Your task to perform on an android device: Clear all items from cart on costco. Search for "usb-c to usb-a" on costco, select the first entry, add it to the cart, then select checkout. Image 0: 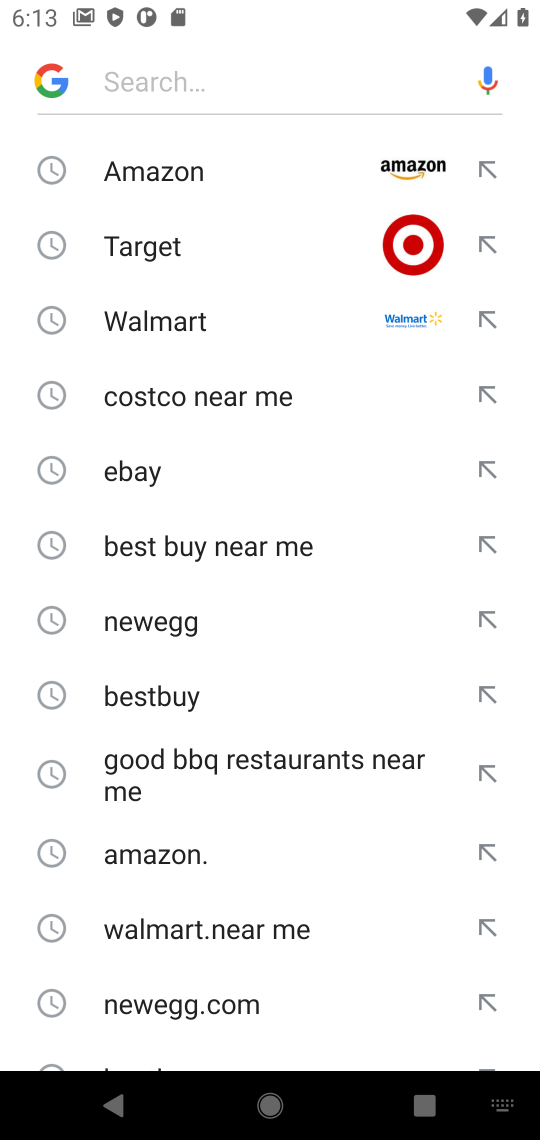
Step 0: press home button
Your task to perform on an android device: Clear all items from cart on costco. Search for "usb-c to usb-a" on costco, select the first entry, add it to the cart, then select checkout. Image 1: 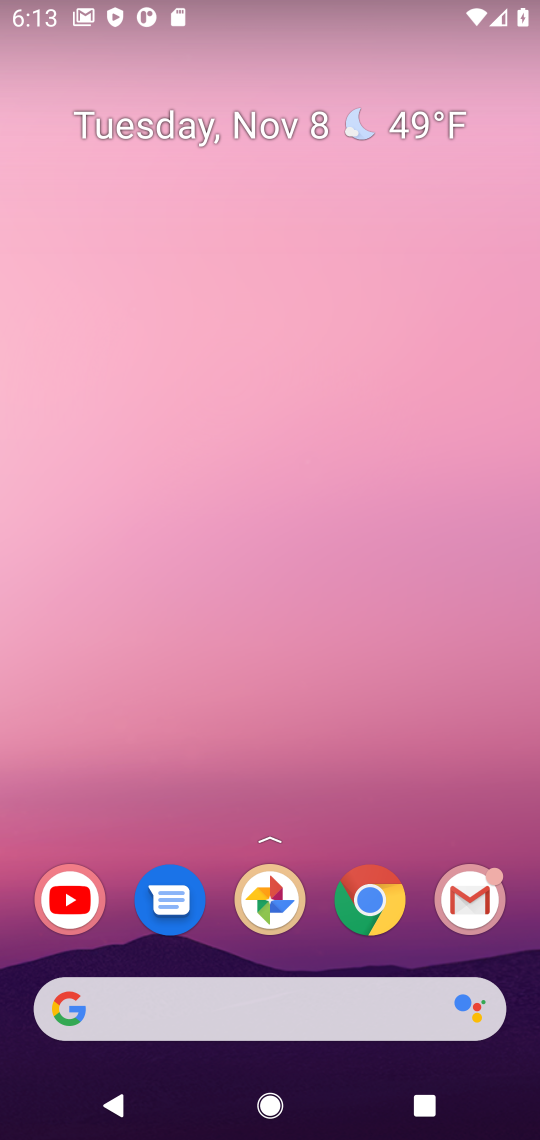
Step 1: click (374, 909)
Your task to perform on an android device: Clear all items from cart on costco. Search for "usb-c to usb-a" on costco, select the first entry, add it to the cart, then select checkout. Image 2: 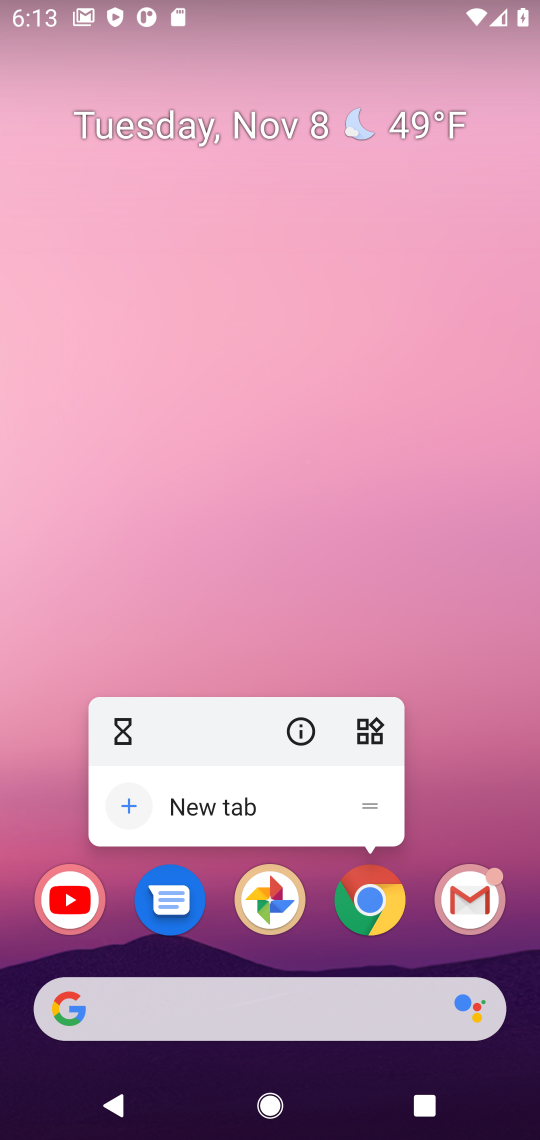
Step 2: click (395, 902)
Your task to perform on an android device: Clear all items from cart on costco. Search for "usb-c to usb-a" on costco, select the first entry, add it to the cart, then select checkout. Image 3: 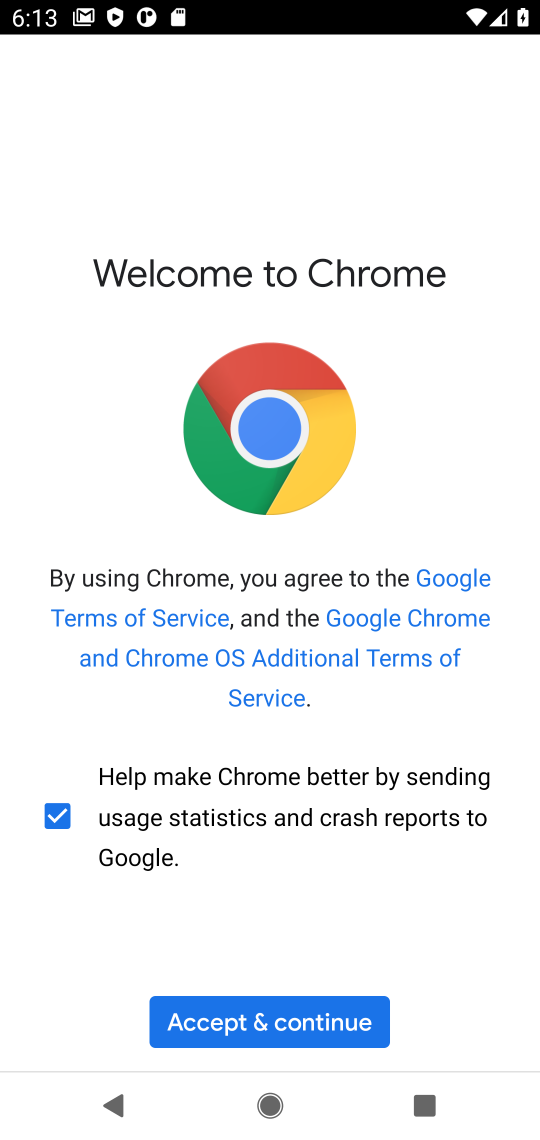
Step 3: click (339, 1034)
Your task to perform on an android device: Clear all items from cart on costco. Search for "usb-c to usb-a" on costco, select the first entry, add it to the cart, then select checkout. Image 4: 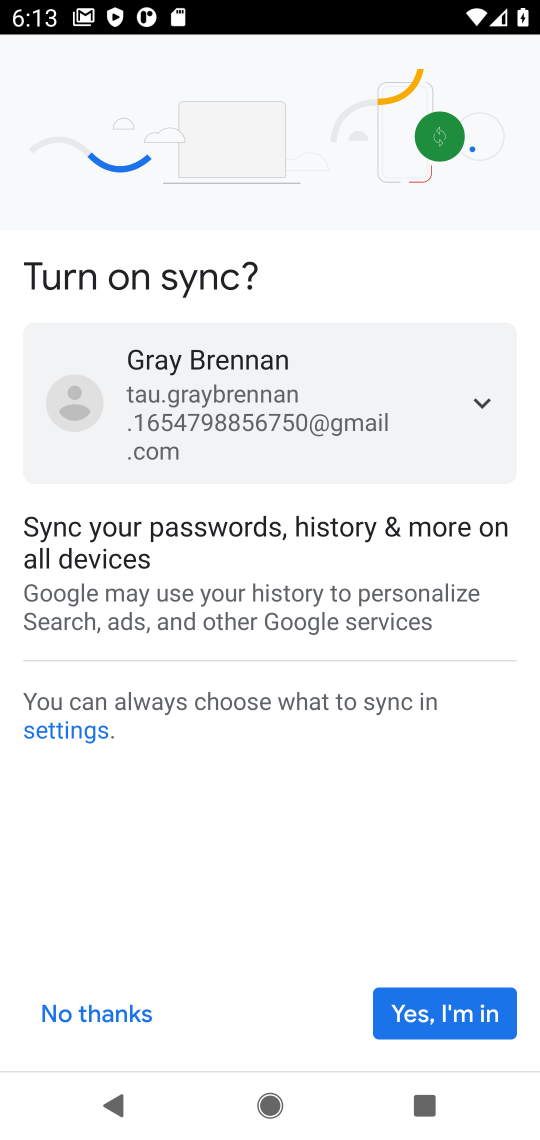
Step 4: click (402, 1002)
Your task to perform on an android device: Clear all items from cart on costco. Search for "usb-c to usb-a" on costco, select the first entry, add it to the cart, then select checkout. Image 5: 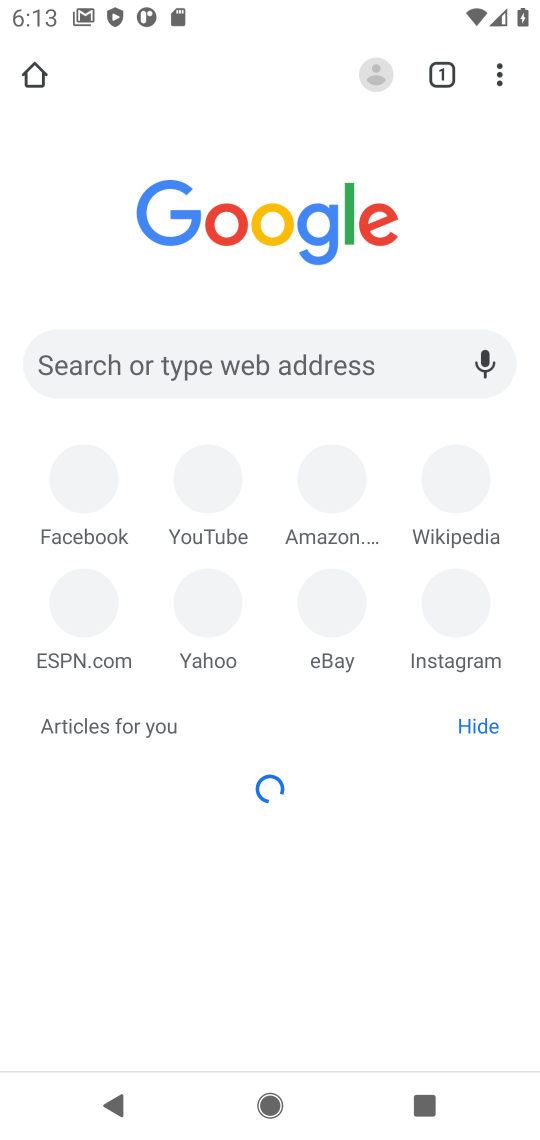
Step 5: click (257, 368)
Your task to perform on an android device: Clear all items from cart on costco. Search for "usb-c to usb-a" on costco, select the first entry, add it to the cart, then select checkout. Image 6: 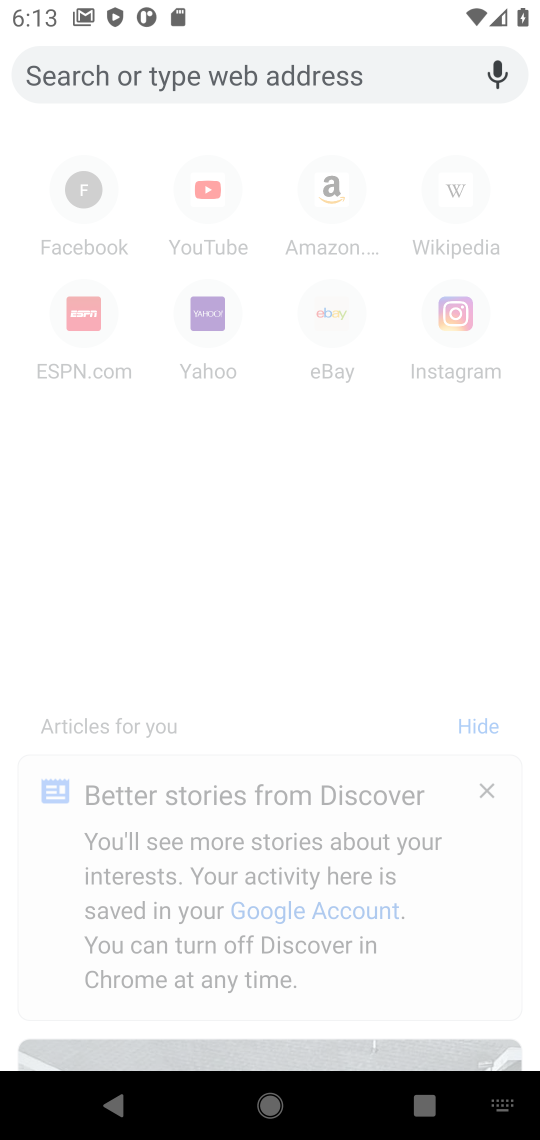
Step 6: type "costco"
Your task to perform on an android device: Clear all items from cart on costco. Search for "usb-c to usb-a" on costco, select the first entry, add it to the cart, then select checkout. Image 7: 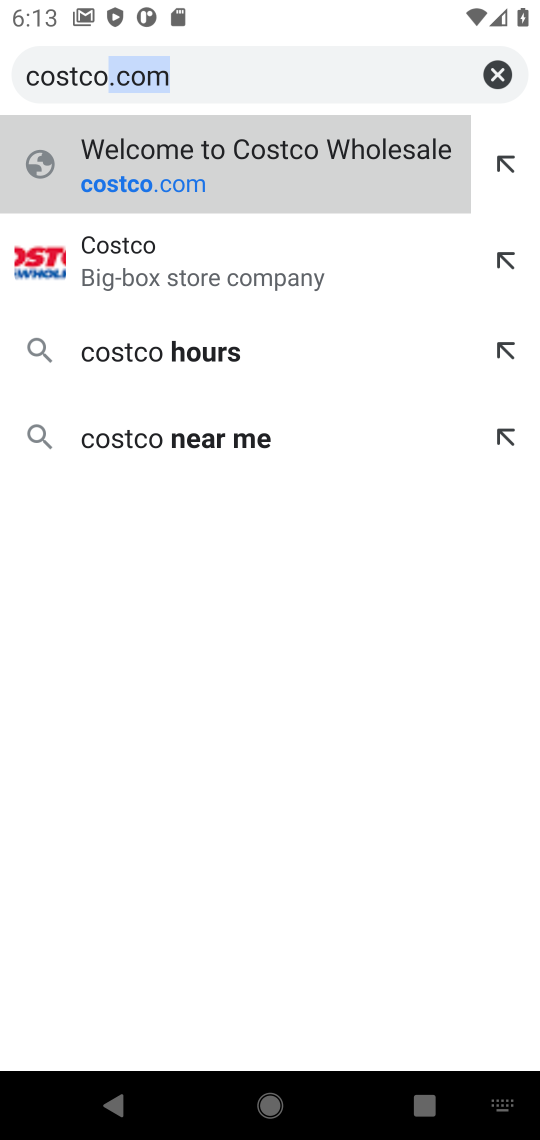
Step 7: type ""
Your task to perform on an android device: Clear all items from cart on costco. Search for "usb-c to usb-a" on costco, select the first entry, add it to the cart, then select checkout. Image 8: 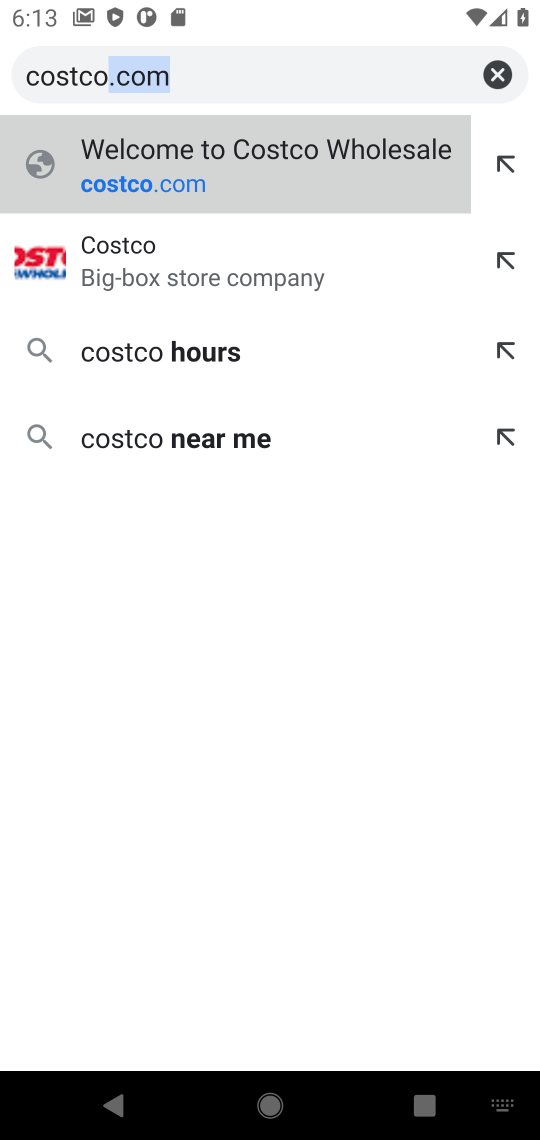
Step 8: press enter
Your task to perform on an android device: Clear all items from cart on costco. Search for "usb-c to usb-a" on costco, select the first entry, add it to the cart, then select checkout. Image 9: 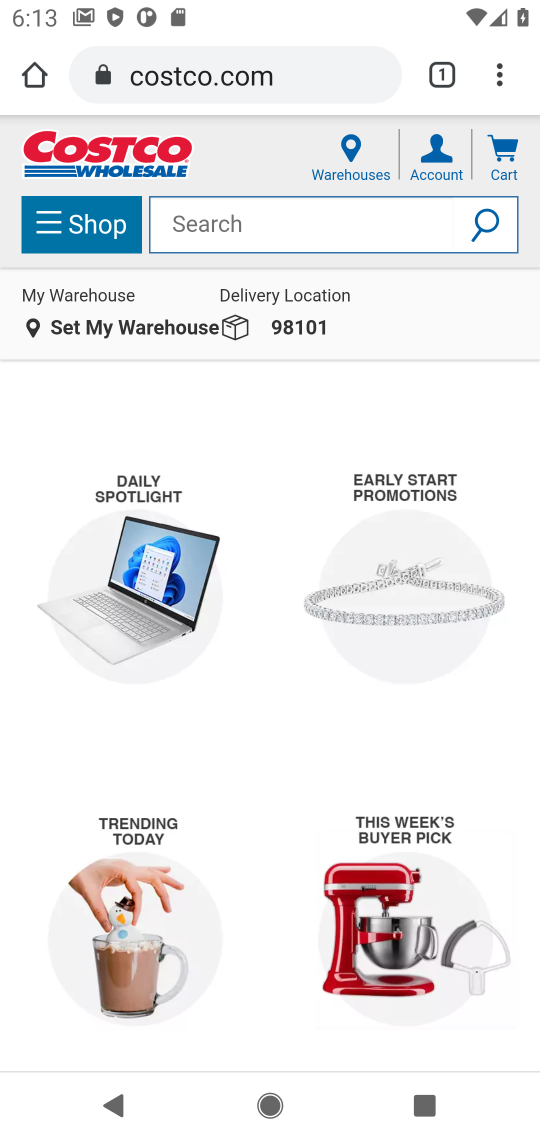
Step 9: click (492, 162)
Your task to perform on an android device: Clear all items from cart on costco. Search for "usb-c to usb-a" on costco, select the first entry, add it to the cart, then select checkout. Image 10: 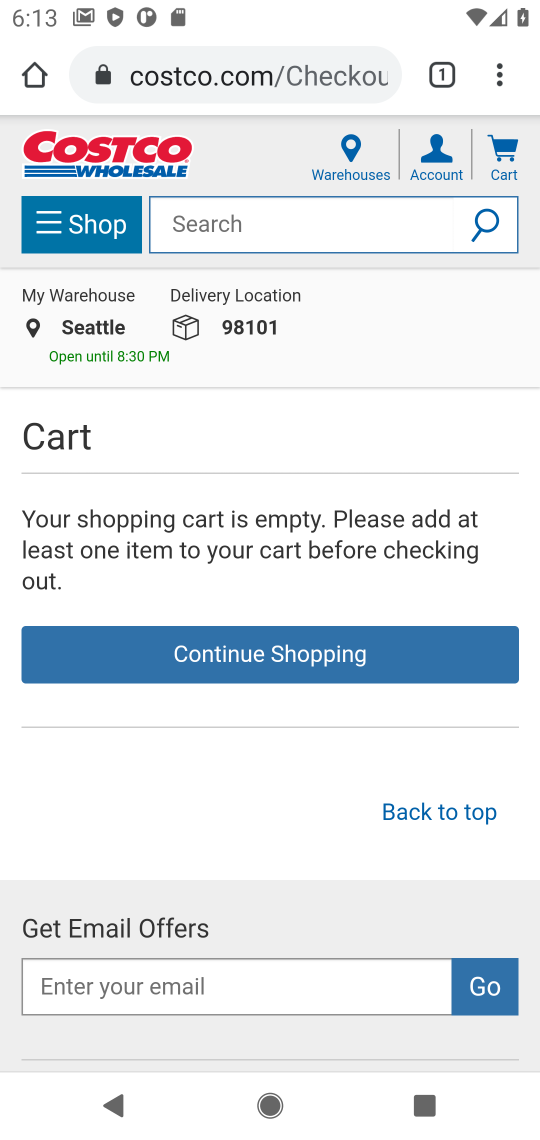
Step 10: click (364, 225)
Your task to perform on an android device: Clear all items from cart on costco. Search for "usb-c to usb-a" on costco, select the first entry, add it to the cart, then select checkout. Image 11: 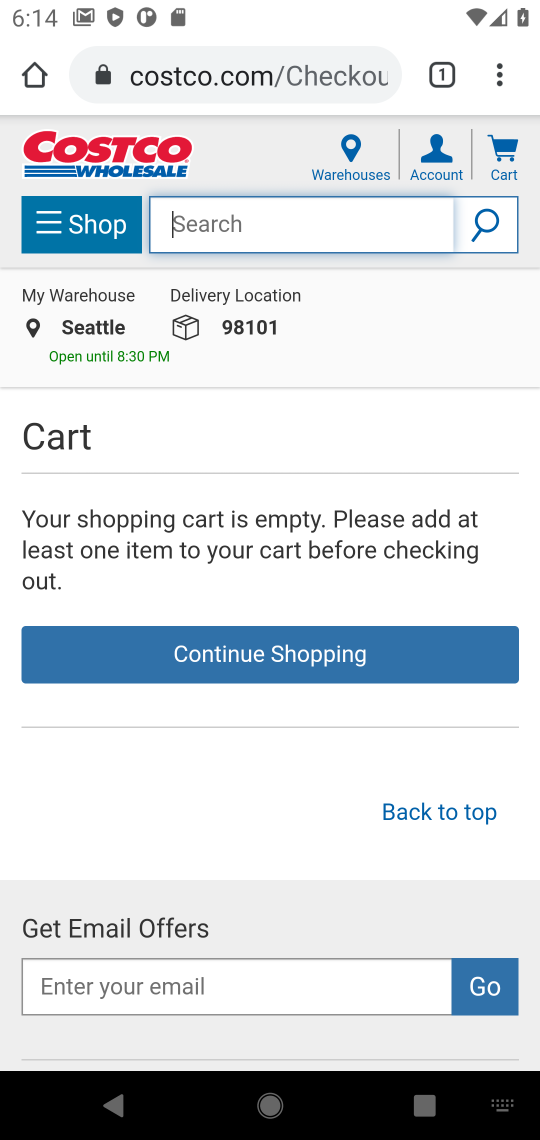
Step 11: click (371, 223)
Your task to perform on an android device: Clear all items from cart on costco. Search for "usb-c to usb-a" on costco, select the first entry, add it to the cart, then select checkout. Image 12: 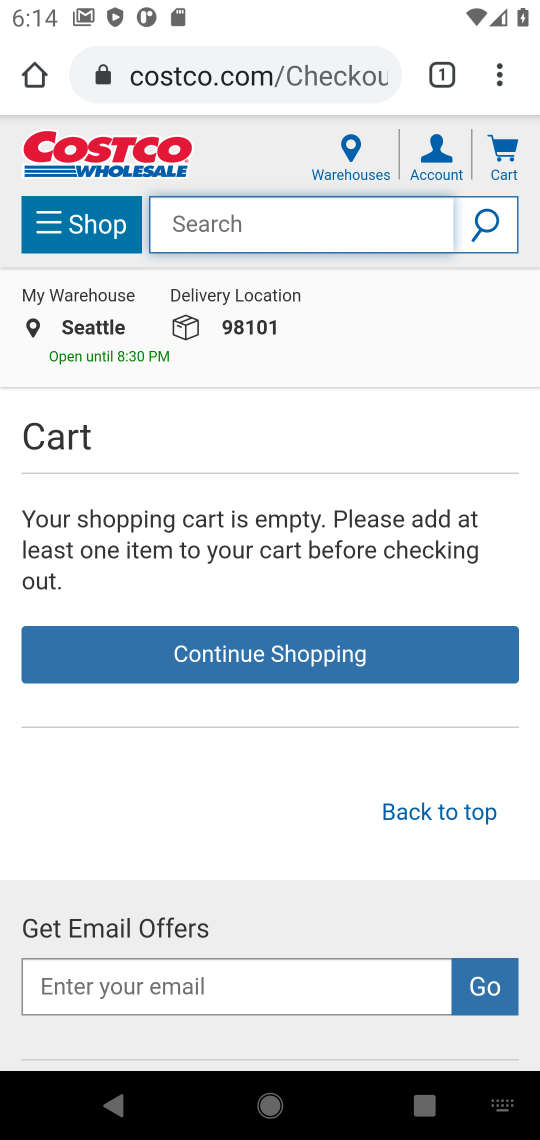
Step 12: type "usb-c to usb-a"
Your task to perform on an android device: Clear all items from cart on costco. Search for "usb-c to usb-a" on costco, select the first entry, add it to the cart, then select checkout. Image 13: 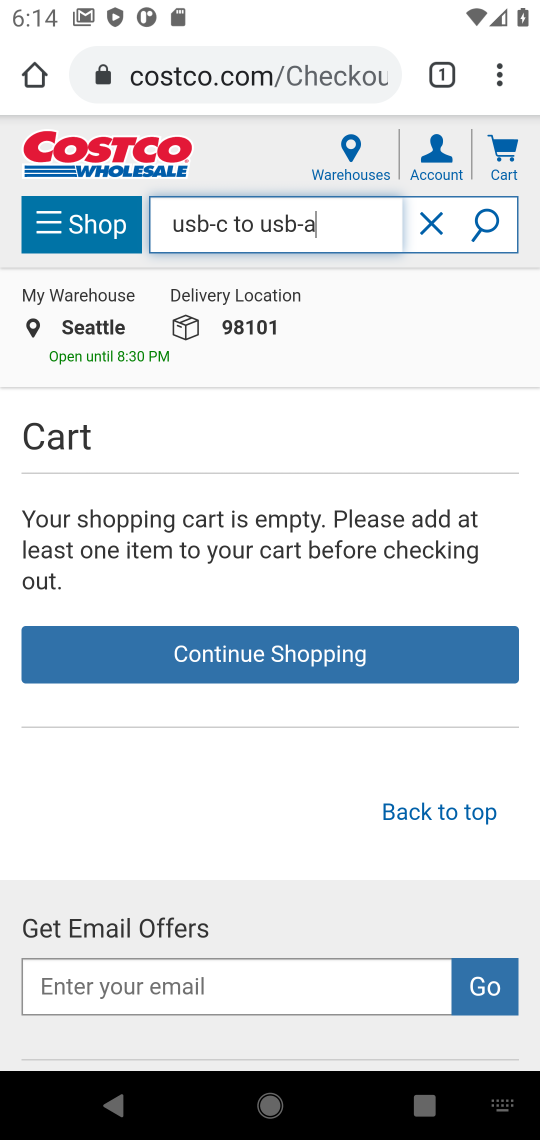
Step 13: type ""
Your task to perform on an android device: Clear all items from cart on costco. Search for "usb-c to usb-a" on costco, select the first entry, add it to the cart, then select checkout. Image 14: 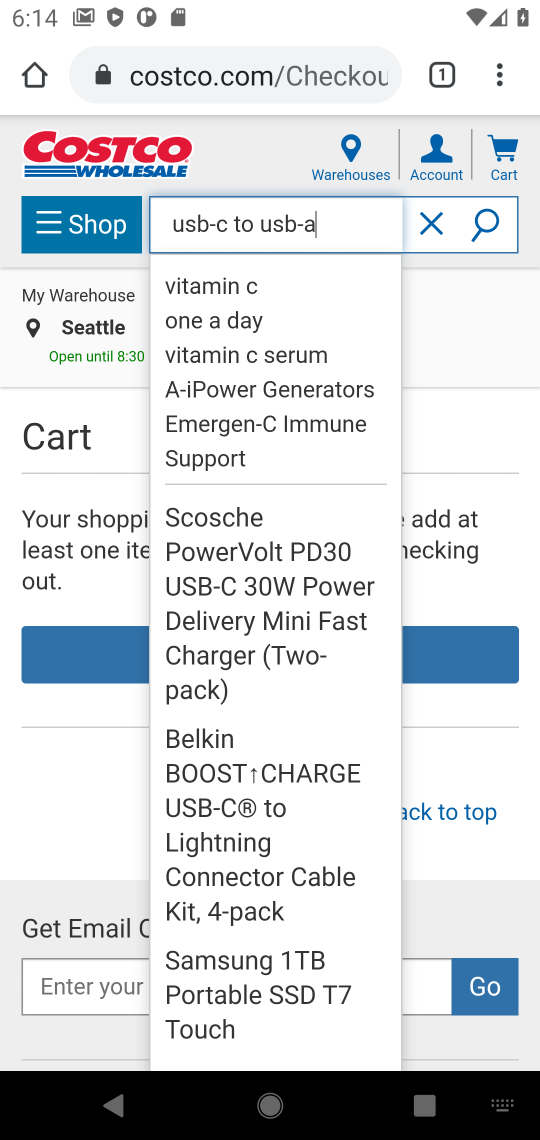
Step 14: click (493, 219)
Your task to perform on an android device: Clear all items from cart on costco. Search for "usb-c to usb-a" on costco, select the first entry, add it to the cart, then select checkout. Image 15: 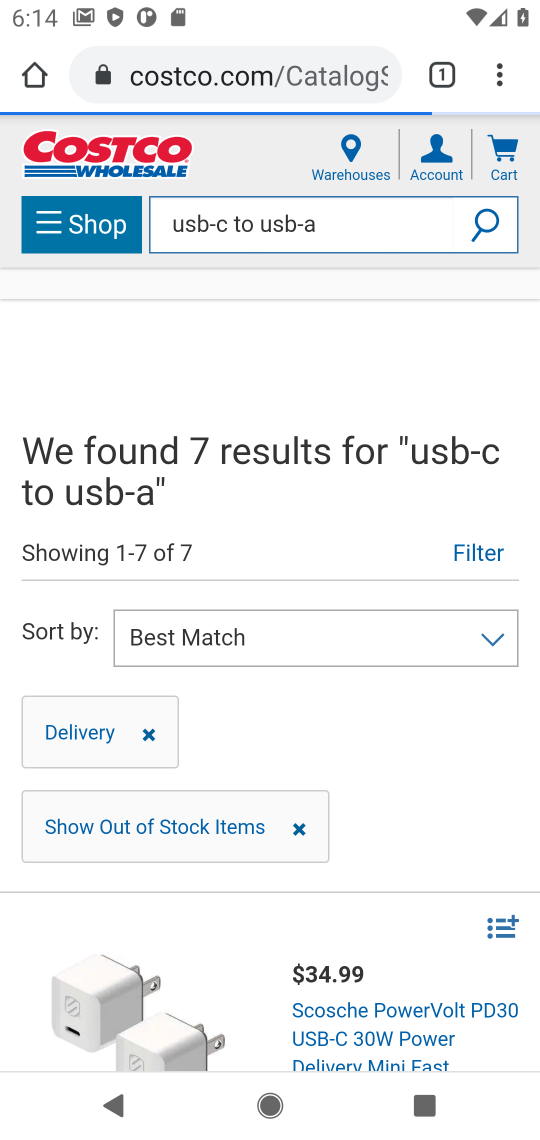
Step 15: drag from (368, 923) to (379, 572)
Your task to perform on an android device: Clear all items from cart on costco. Search for "usb-c to usb-a" on costco, select the first entry, add it to the cart, then select checkout. Image 16: 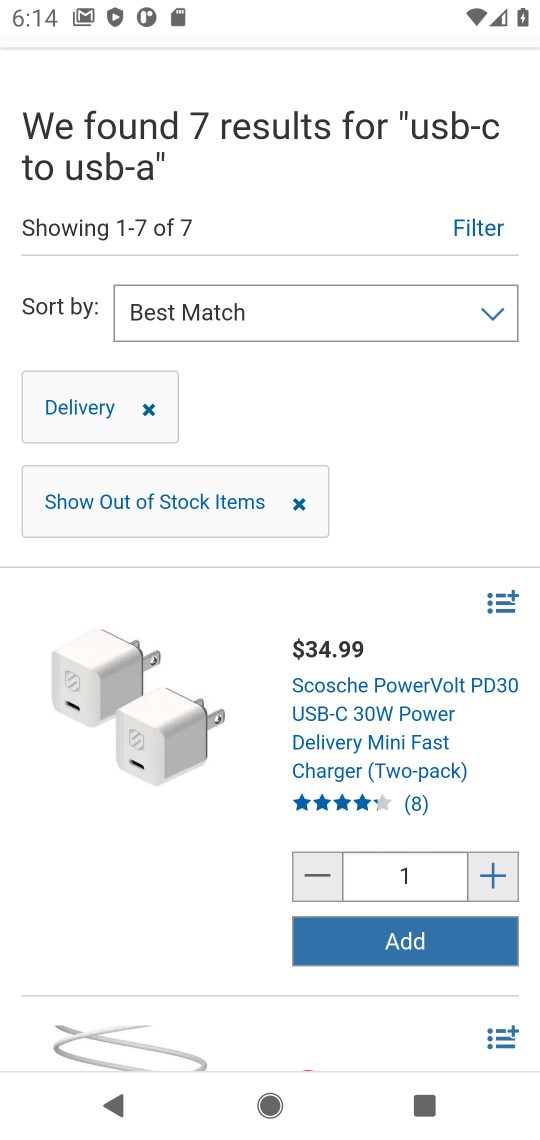
Step 16: click (367, 725)
Your task to perform on an android device: Clear all items from cart on costco. Search for "usb-c to usb-a" on costco, select the first entry, add it to the cart, then select checkout. Image 17: 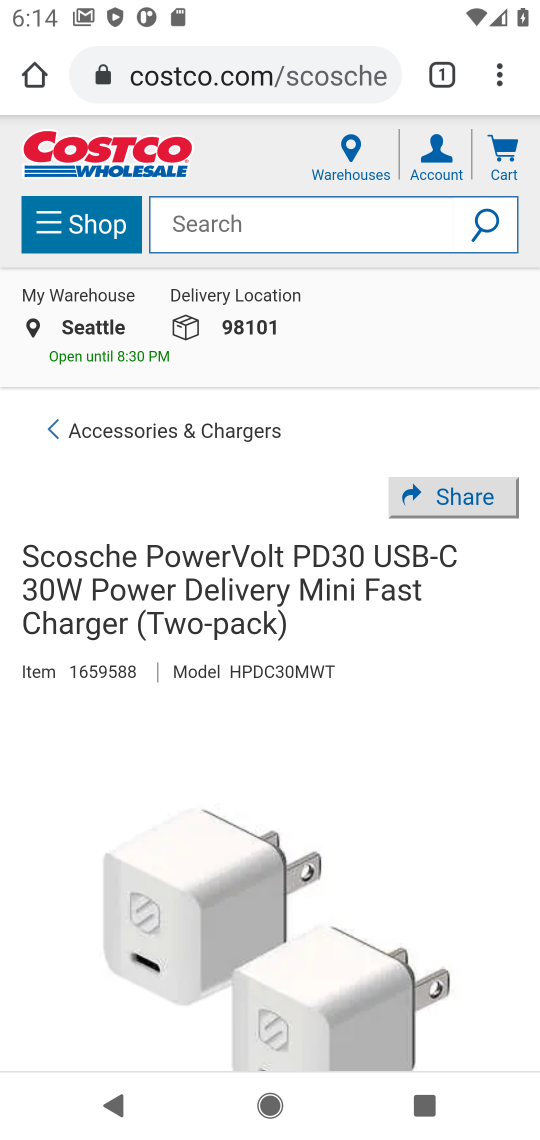
Step 17: drag from (384, 981) to (389, 373)
Your task to perform on an android device: Clear all items from cart on costco. Search for "usb-c to usb-a" on costco, select the first entry, add it to the cart, then select checkout. Image 18: 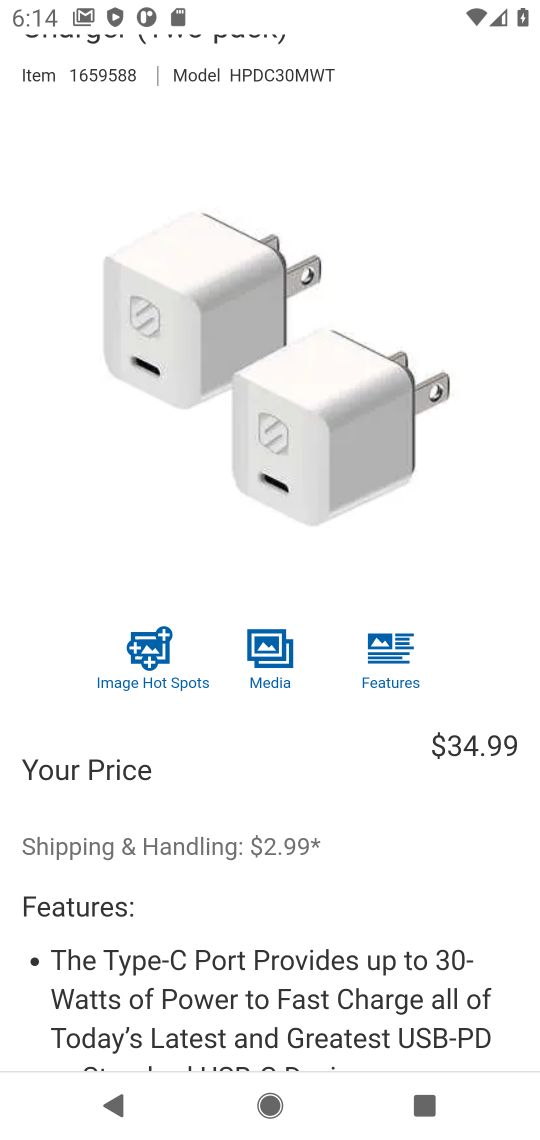
Step 18: drag from (309, 797) to (321, 286)
Your task to perform on an android device: Clear all items from cart on costco. Search for "usb-c to usb-a" on costco, select the first entry, add it to the cart, then select checkout. Image 19: 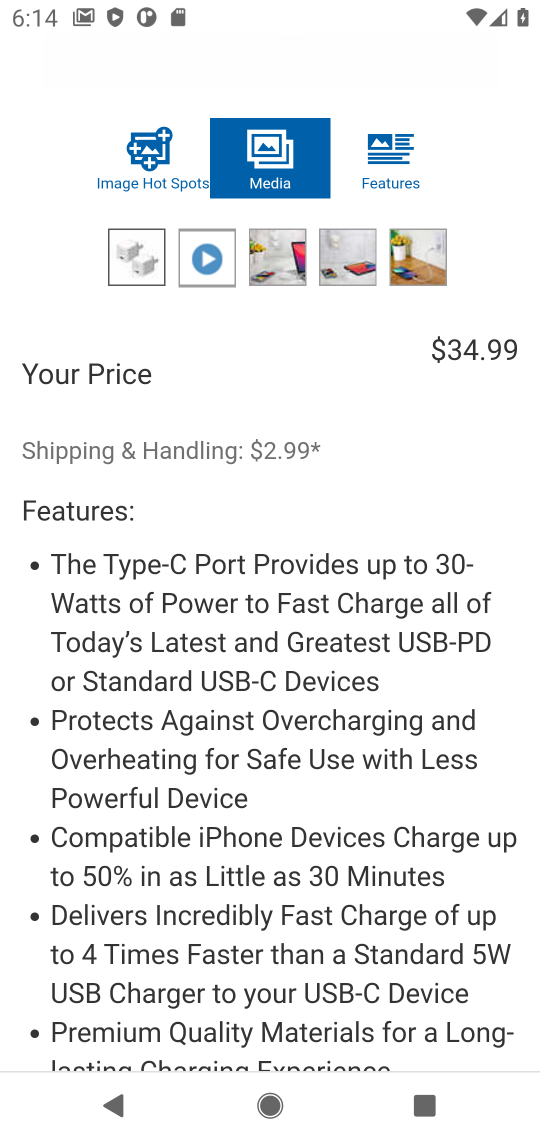
Step 19: drag from (303, 906) to (310, 844)
Your task to perform on an android device: Clear all items from cart on costco. Search for "usb-c to usb-a" on costco, select the first entry, add it to the cart, then select checkout. Image 20: 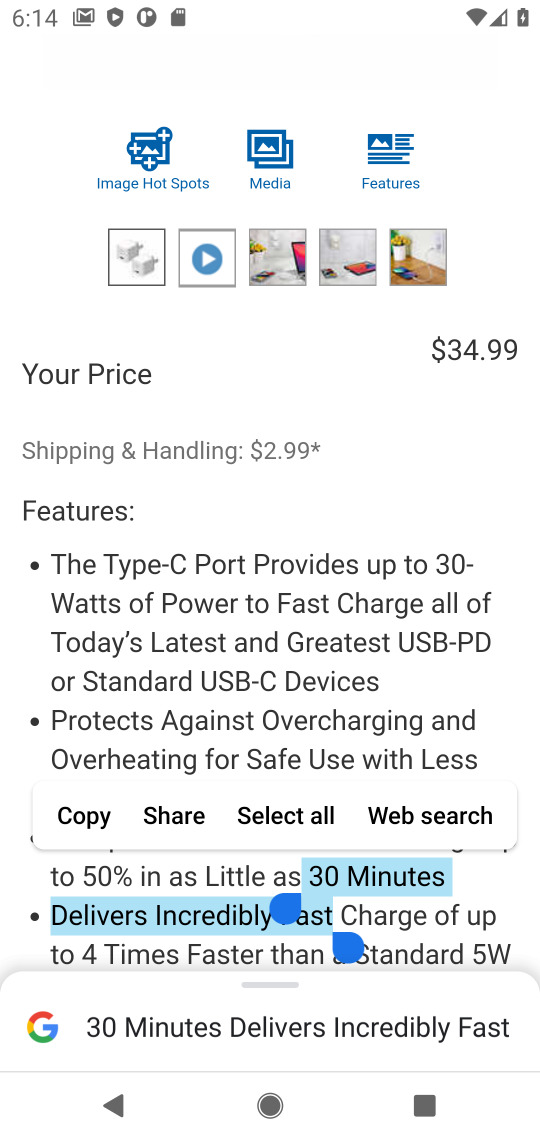
Step 20: click (466, 681)
Your task to perform on an android device: Clear all items from cart on costco. Search for "usb-c to usb-a" on costco, select the first entry, add it to the cart, then select checkout. Image 21: 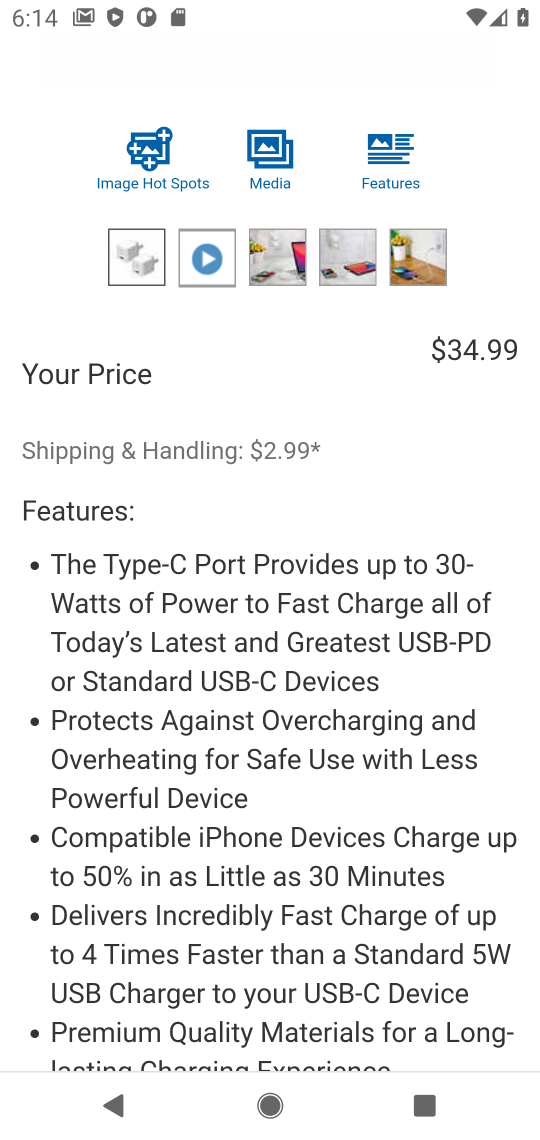
Step 21: drag from (324, 921) to (319, 324)
Your task to perform on an android device: Clear all items from cart on costco. Search for "usb-c to usb-a" on costco, select the first entry, add it to the cart, then select checkout. Image 22: 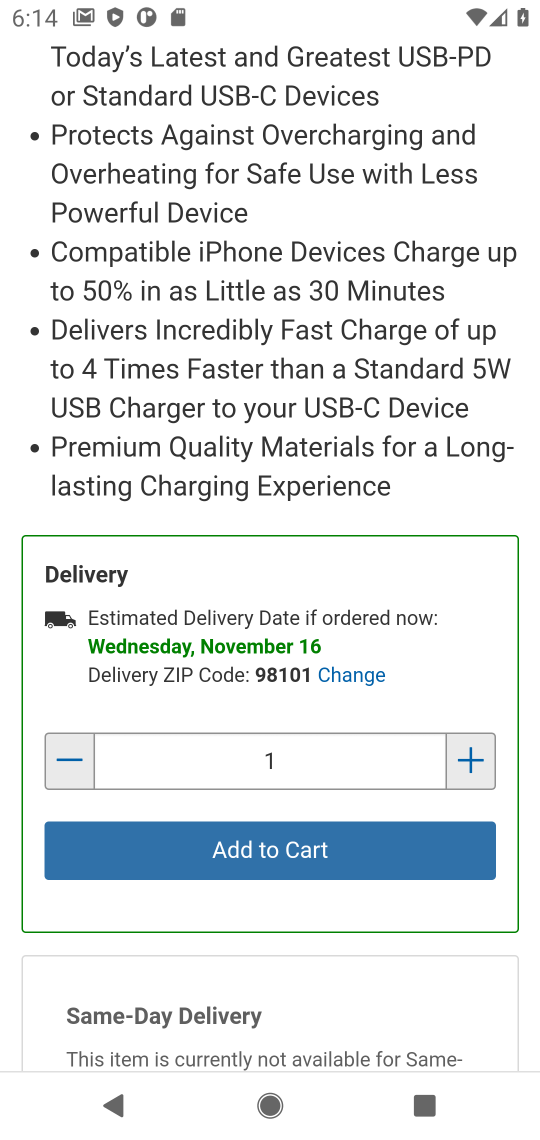
Step 22: click (202, 860)
Your task to perform on an android device: Clear all items from cart on costco. Search for "usb-c to usb-a" on costco, select the first entry, add it to the cart, then select checkout. Image 23: 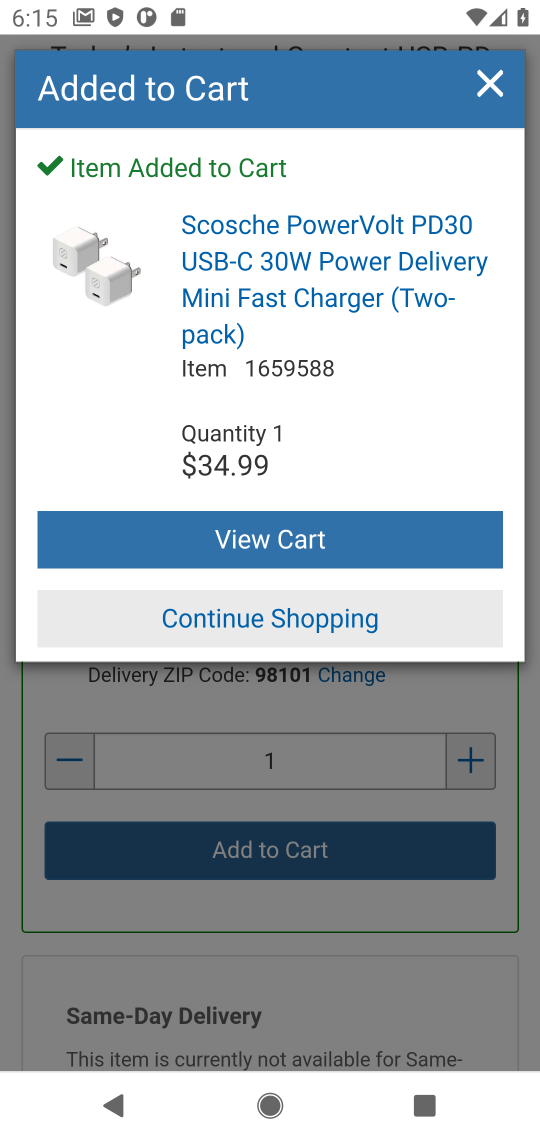
Step 23: click (344, 531)
Your task to perform on an android device: Clear all items from cart on costco. Search for "usb-c to usb-a" on costco, select the first entry, add it to the cart, then select checkout. Image 24: 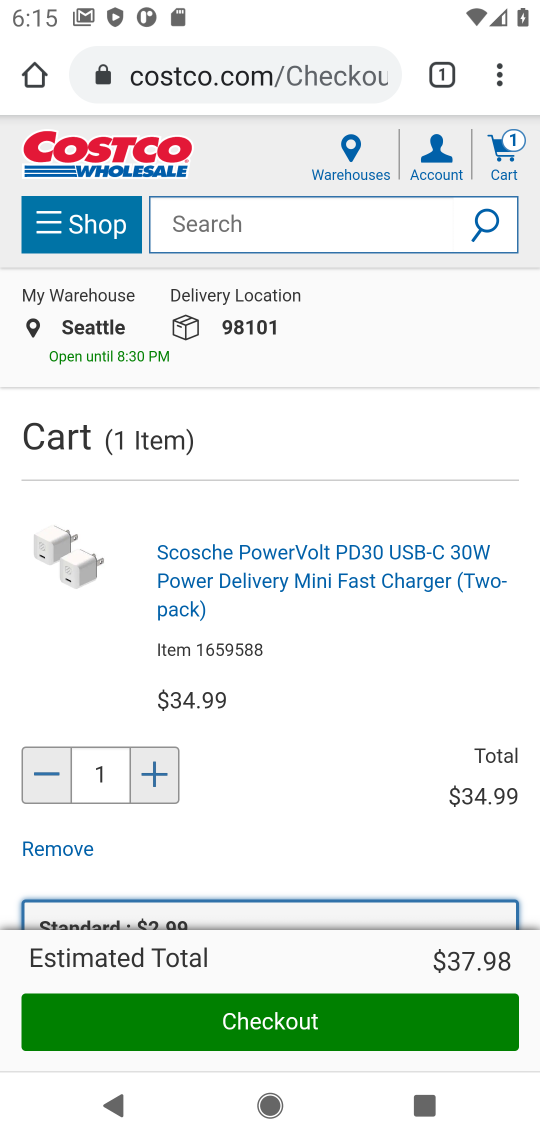
Step 24: click (342, 1030)
Your task to perform on an android device: Clear all items from cart on costco. Search for "usb-c to usb-a" on costco, select the first entry, add it to the cart, then select checkout. Image 25: 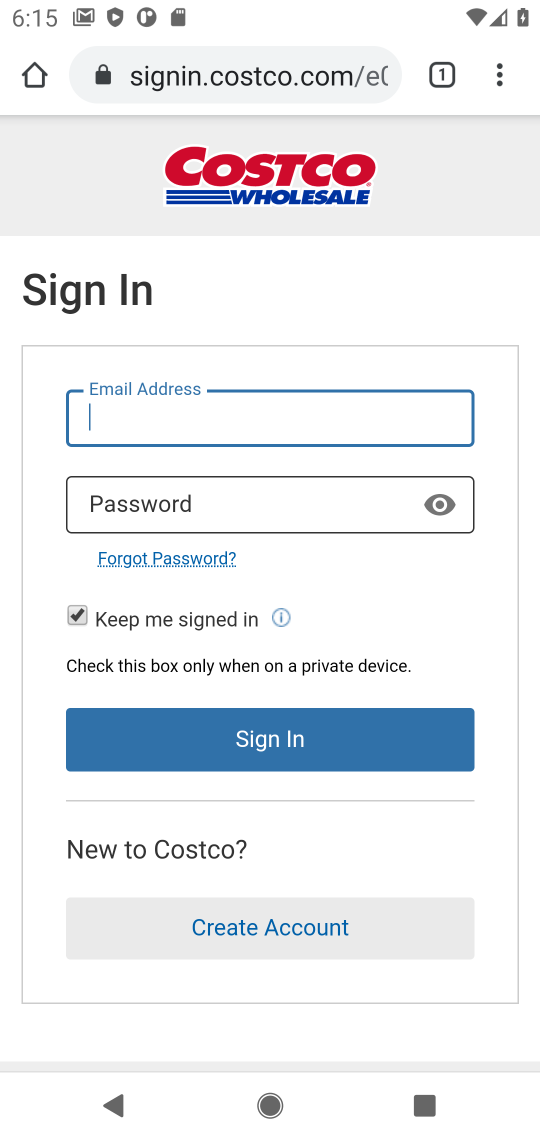
Step 25: task complete